Your task to perform on an android device: Open Wikipedia Image 0: 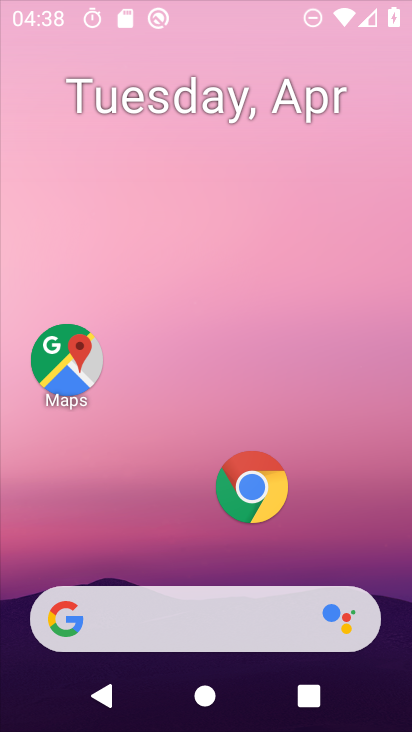
Step 0: drag from (191, 501) to (248, 6)
Your task to perform on an android device: Open Wikipedia Image 1: 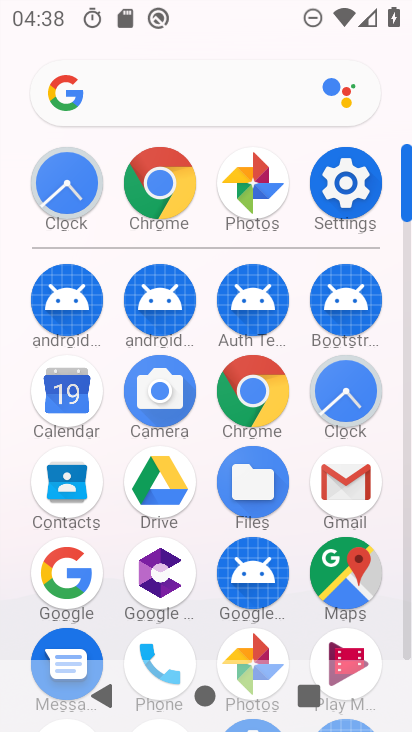
Step 1: click (175, 173)
Your task to perform on an android device: Open Wikipedia Image 2: 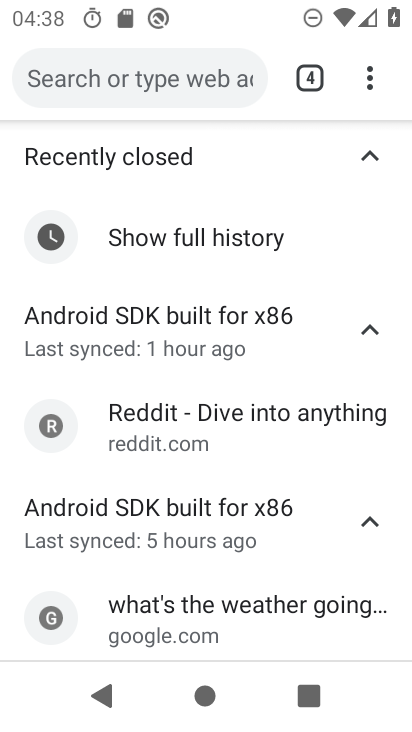
Step 2: click (305, 78)
Your task to perform on an android device: Open Wikipedia Image 3: 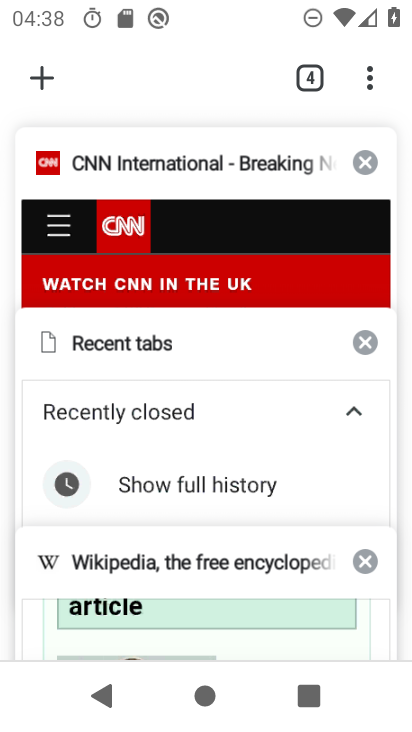
Step 3: click (38, 79)
Your task to perform on an android device: Open Wikipedia Image 4: 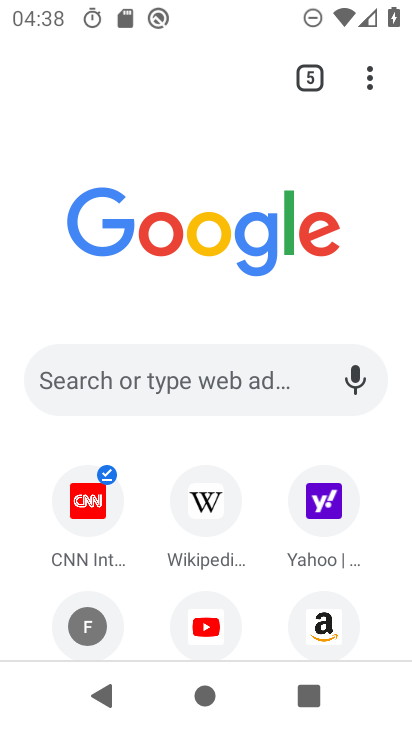
Step 4: click (201, 497)
Your task to perform on an android device: Open Wikipedia Image 5: 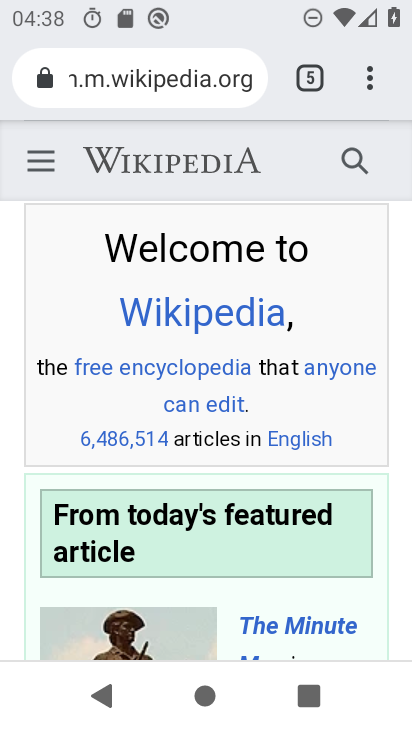
Step 5: task complete